Your task to perform on an android device: turn off sleep mode Image 0: 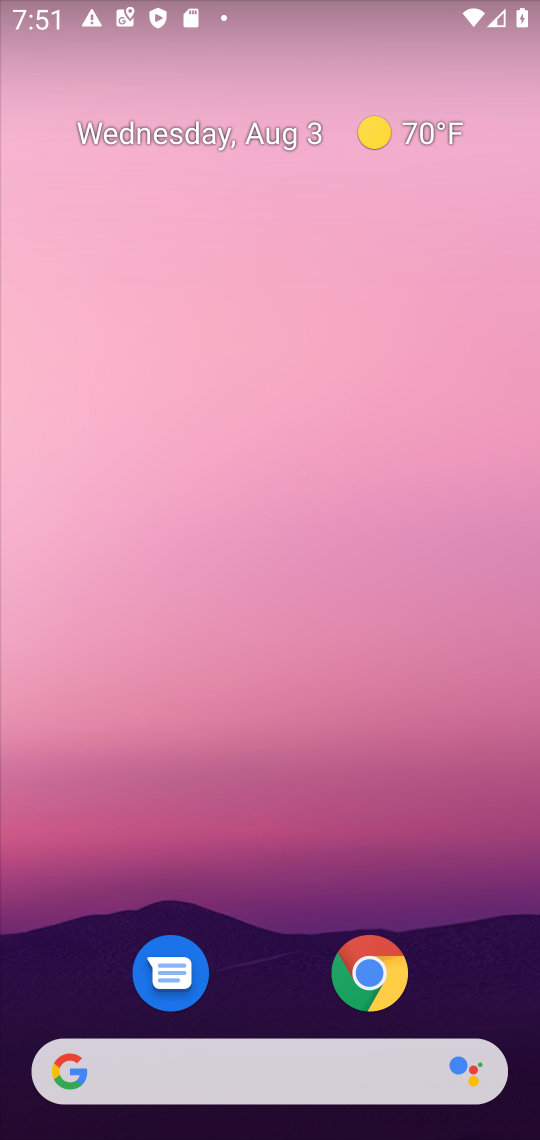
Step 0: drag from (276, 995) to (336, 116)
Your task to perform on an android device: turn off sleep mode Image 1: 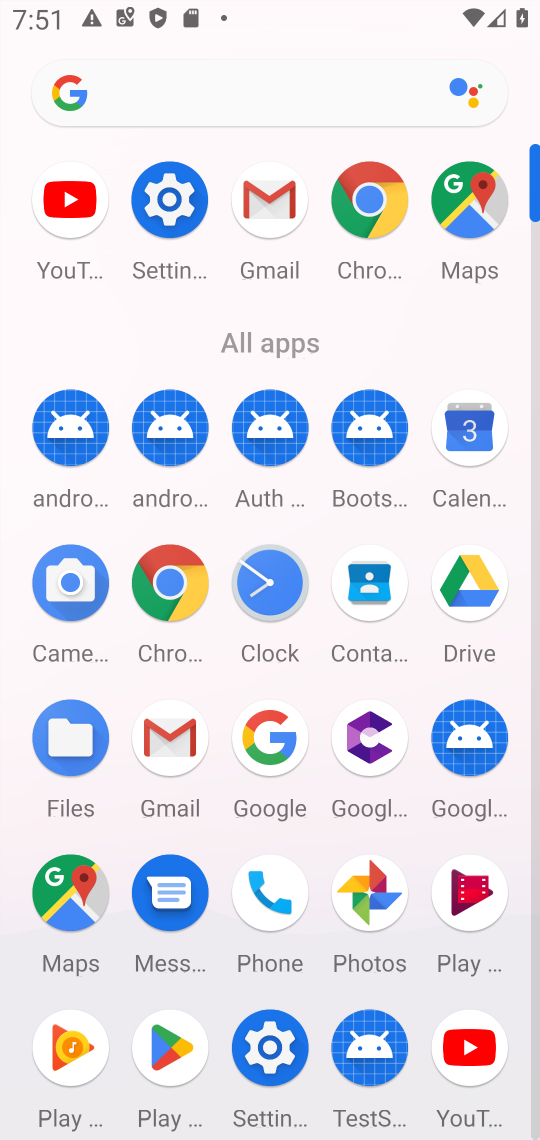
Step 1: click (158, 192)
Your task to perform on an android device: turn off sleep mode Image 2: 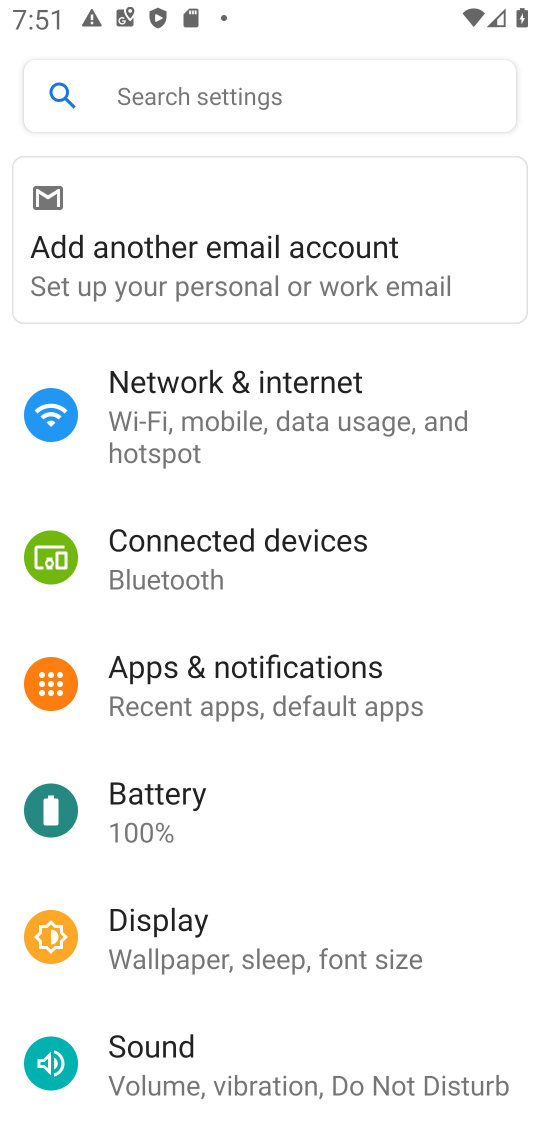
Step 2: click (225, 922)
Your task to perform on an android device: turn off sleep mode Image 3: 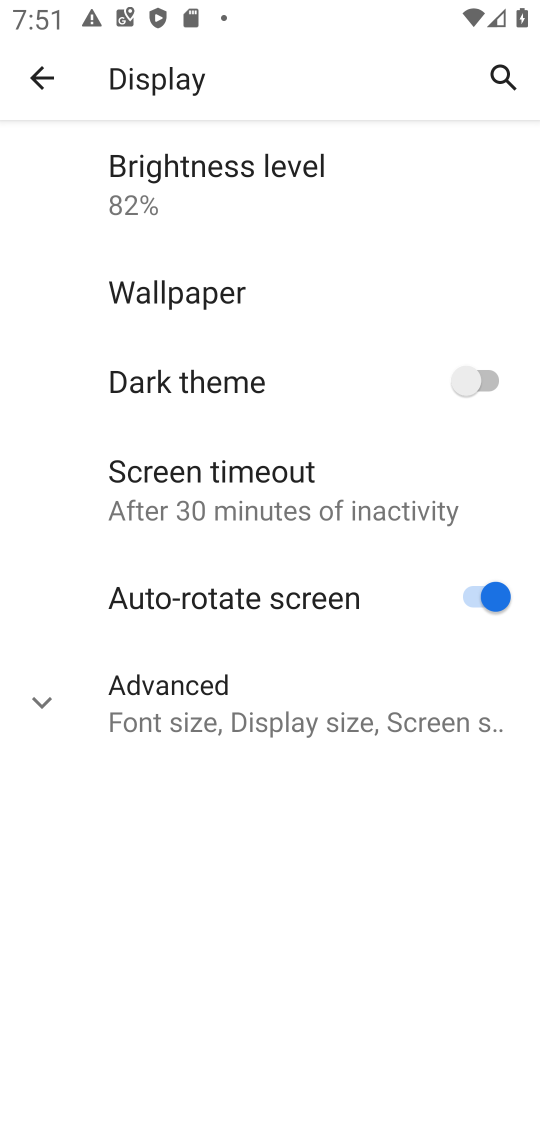
Step 3: click (41, 694)
Your task to perform on an android device: turn off sleep mode Image 4: 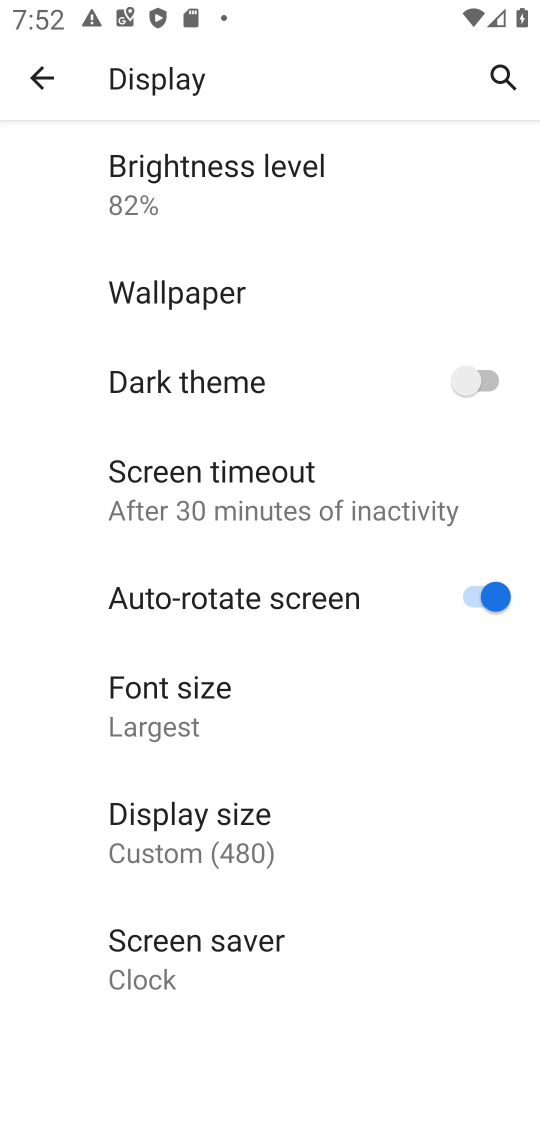
Step 4: task complete